Your task to perform on an android device: turn on improve location accuracy Image 0: 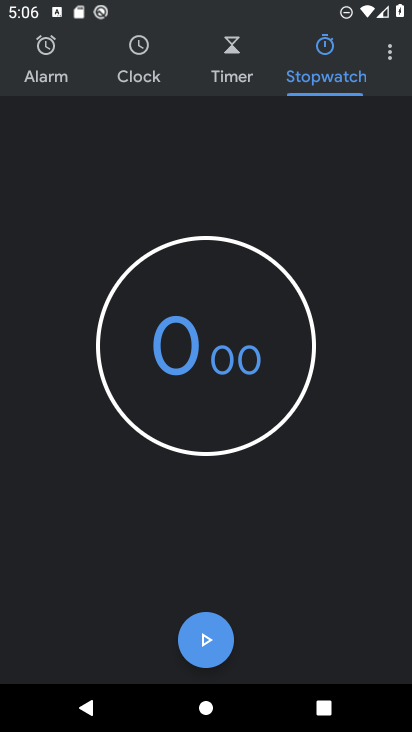
Step 0: press home button
Your task to perform on an android device: turn on improve location accuracy Image 1: 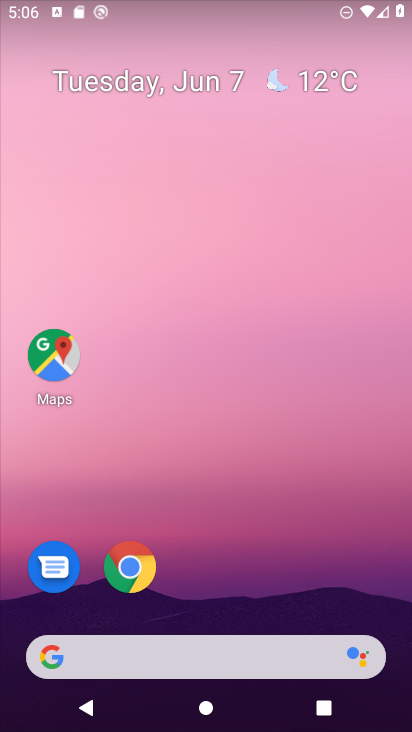
Step 1: drag from (267, 660) to (341, 66)
Your task to perform on an android device: turn on improve location accuracy Image 2: 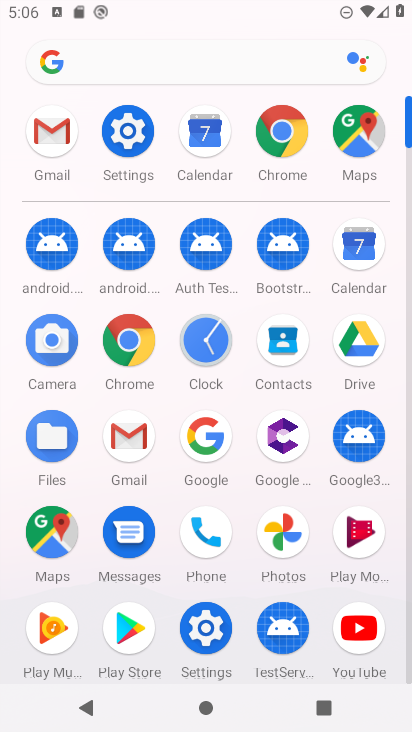
Step 2: click (109, 132)
Your task to perform on an android device: turn on improve location accuracy Image 3: 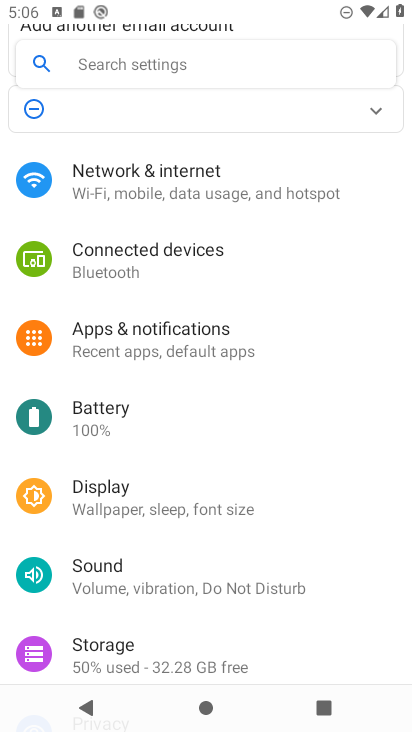
Step 3: drag from (109, 651) to (111, 174)
Your task to perform on an android device: turn on improve location accuracy Image 4: 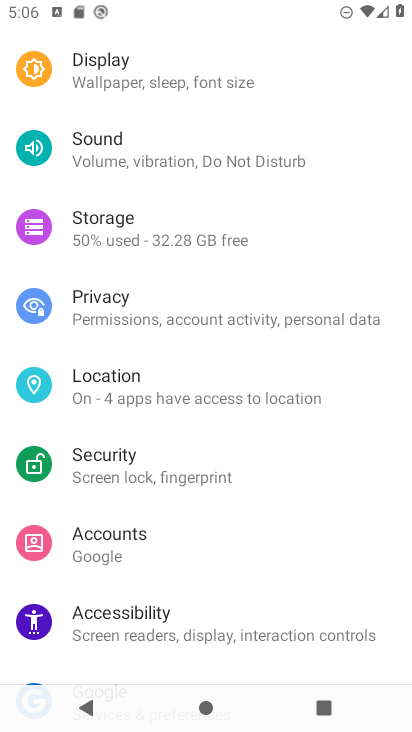
Step 4: click (156, 400)
Your task to perform on an android device: turn on improve location accuracy Image 5: 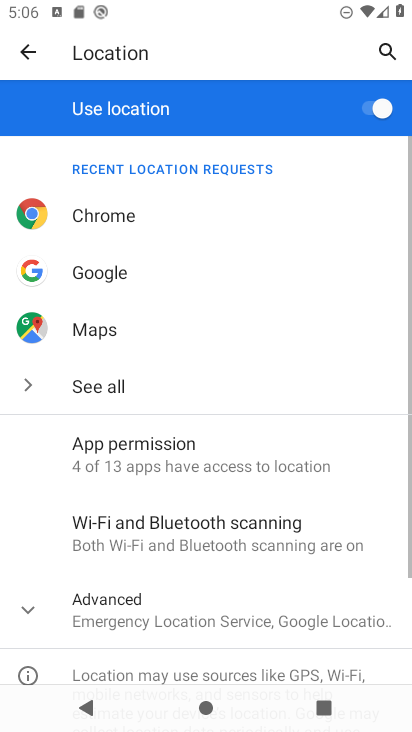
Step 5: drag from (208, 614) to (210, 383)
Your task to perform on an android device: turn on improve location accuracy Image 6: 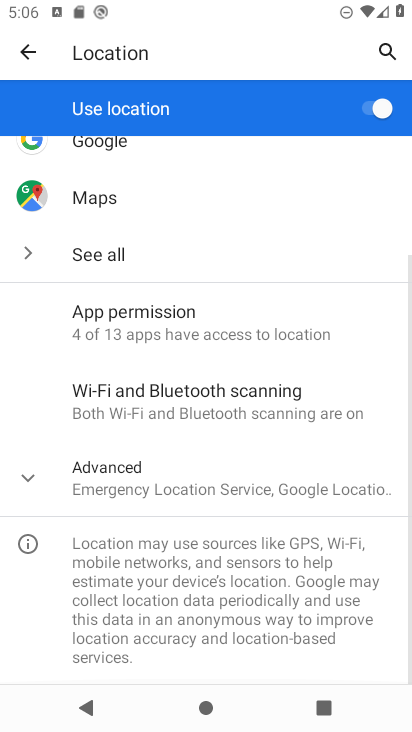
Step 6: click (179, 469)
Your task to perform on an android device: turn on improve location accuracy Image 7: 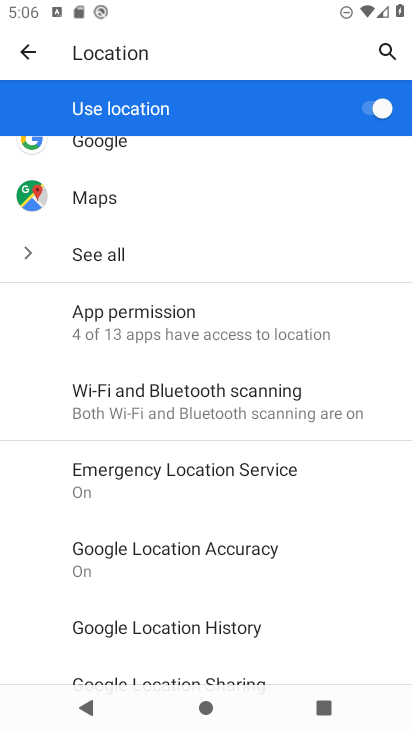
Step 7: click (228, 562)
Your task to perform on an android device: turn on improve location accuracy Image 8: 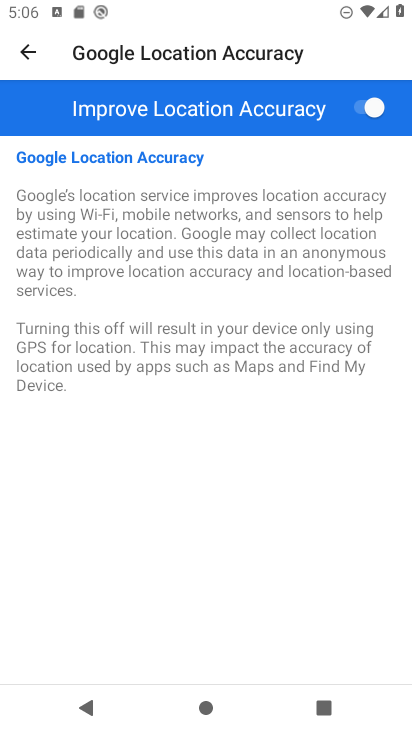
Step 8: task complete